Your task to perform on an android device: Go to privacy settings Image 0: 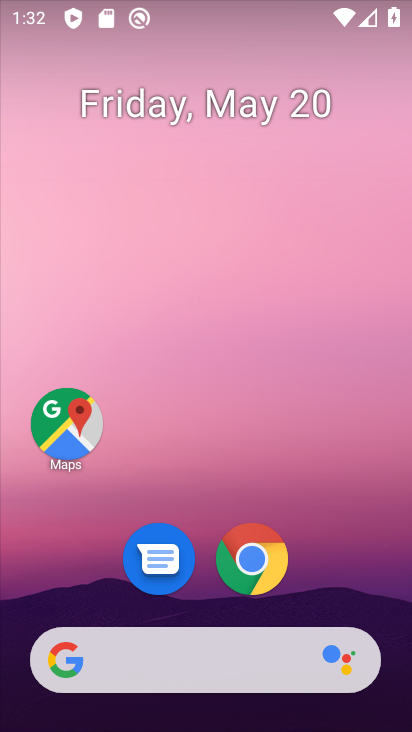
Step 0: drag from (300, 585) to (318, 44)
Your task to perform on an android device: Go to privacy settings Image 1: 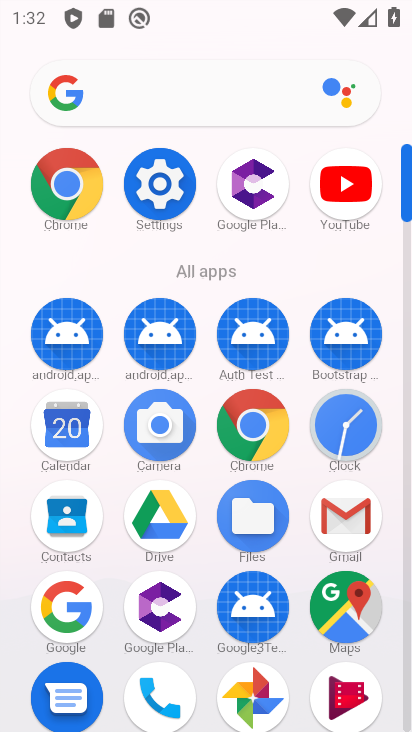
Step 1: click (149, 202)
Your task to perform on an android device: Go to privacy settings Image 2: 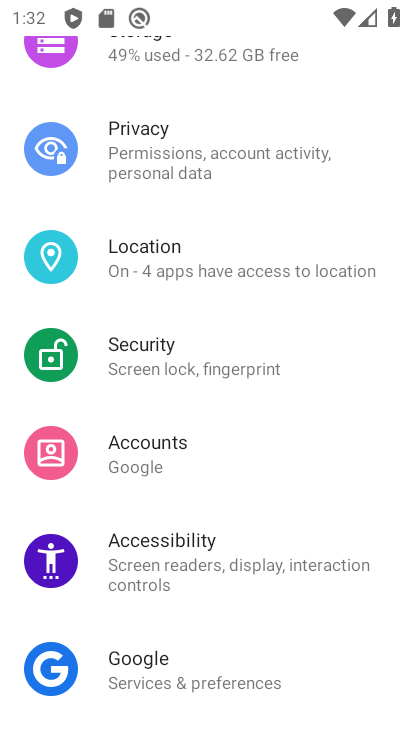
Step 2: click (204, 150)
Your task to perform on an android device: Go to privacy settings Image 3: 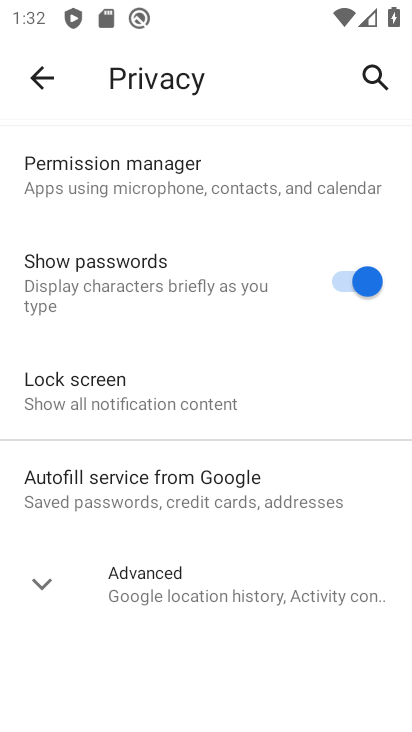
Step 3: task complete